Your task to perform on an android device: toggle javascript in the chrome app Image 0: 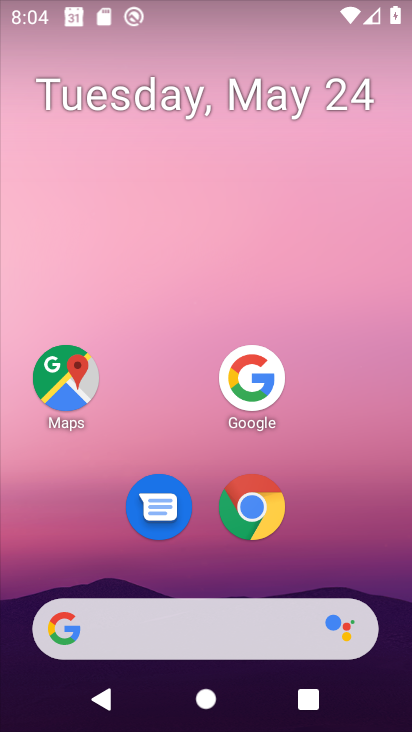
Step 0: press home button
Your task to perform on an android device: toggle javascript in the chrome app Image 1: 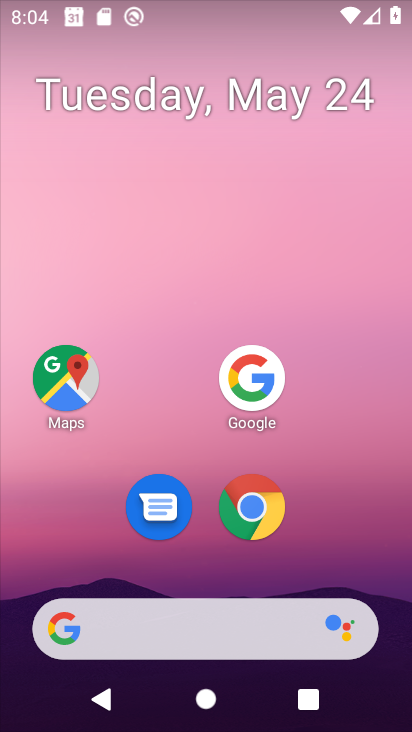
Step 1: click (253, 514)
Your task to perform on an android device: toggle javascript in the chrome app Image 2: 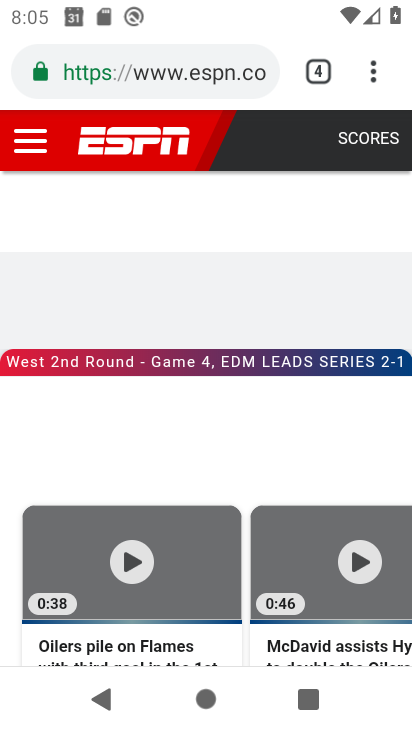
Step 2: drag from (373, 85) to (226, 507)
Your task to perform on an android device: toggle javascript in the chrome app Image 3: 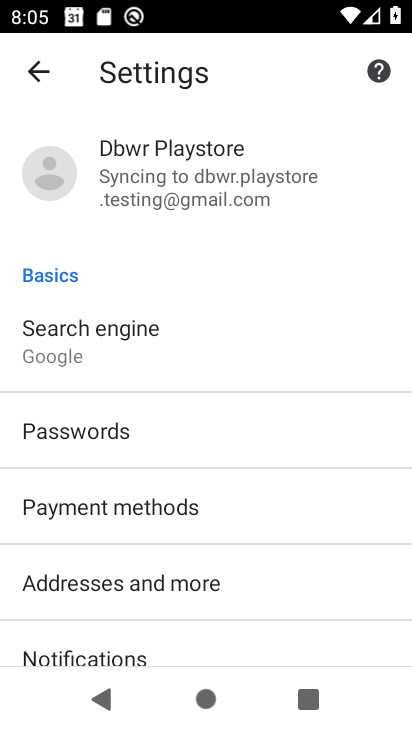
Step 3: drag from (211, 636) to (247, 130)
Your task to perform on an android device: toggle javascript in the chrome app Image 4: 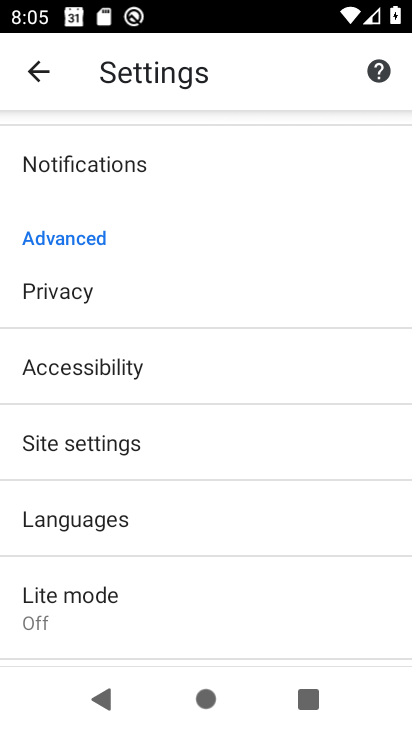
Step 4: click (90, 438)
Your task to perform on an android device: toggle javascript in the chrome app Image 5: 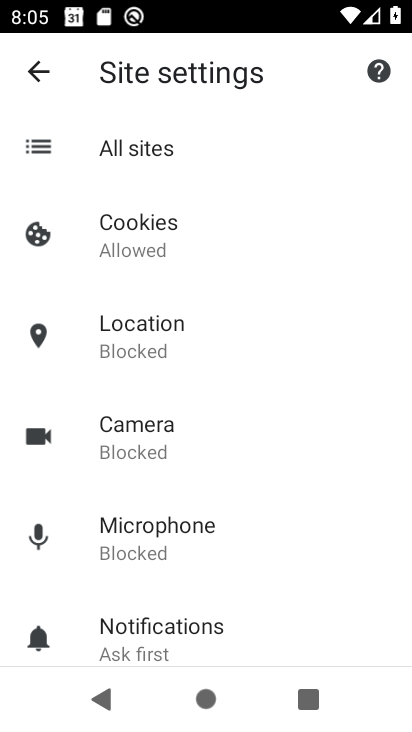
Step 5: drag from (230, 578) to (251, 242)
Your task to perform on an android device: toggle javascript in the chrome app Image 6: 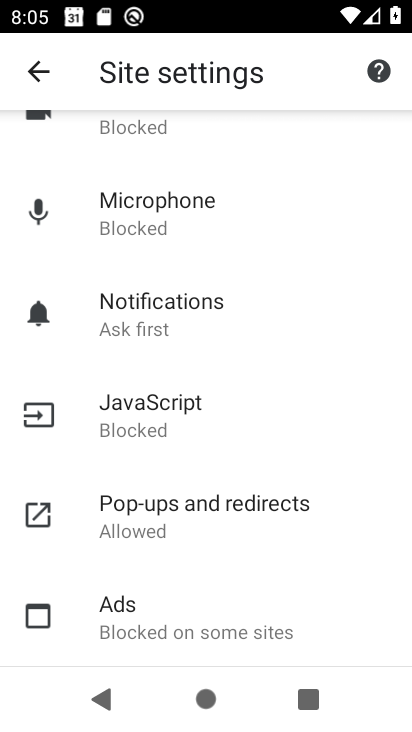
Step 6: click (134, 406)
Your task to perform on an android device: toggle javascript in the chrome app Image 7: 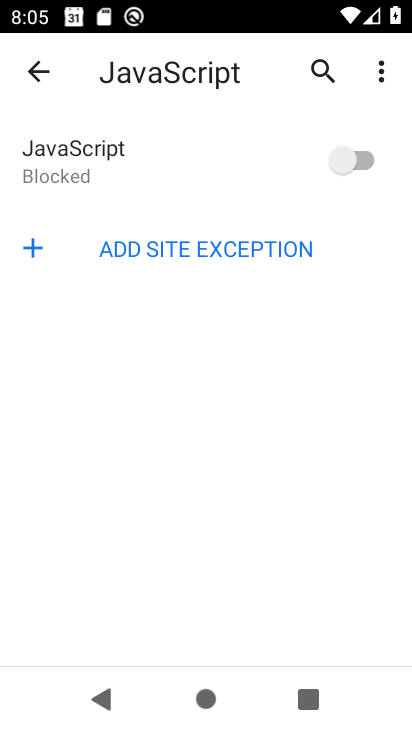
Step 7: click (366, 157)
Your task to perform on an android device: toggle javascript in the chrome app Image 8: 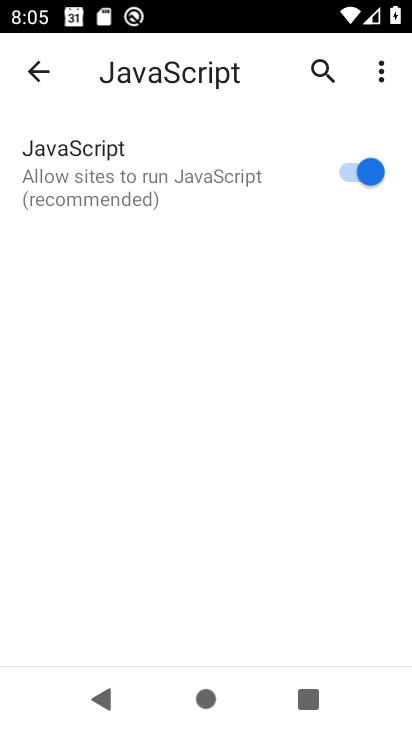
Step 8: task complete